Your task to perform on an android device: Go to sound settings Image 0: 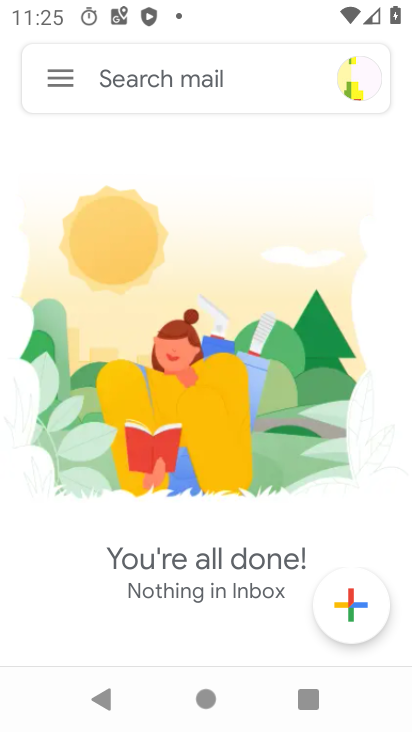
Step 0: press home button
Your task to perform on an android device: Go to sound settings Image 1: 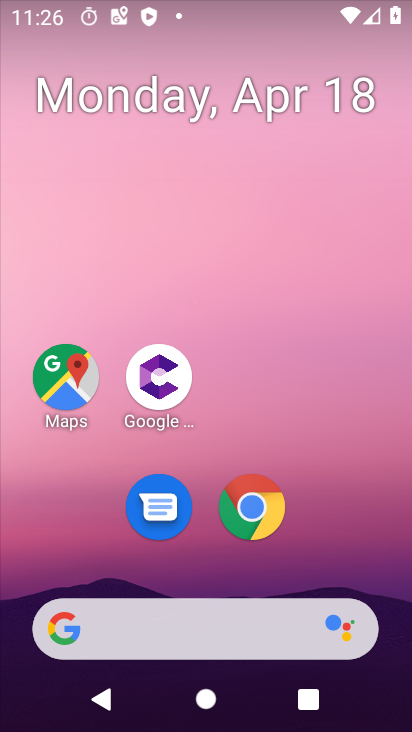
Step 1: drag from (289, 664) to (387, 212)
Your task to perform on an android device: Go to sound settings Image 2: 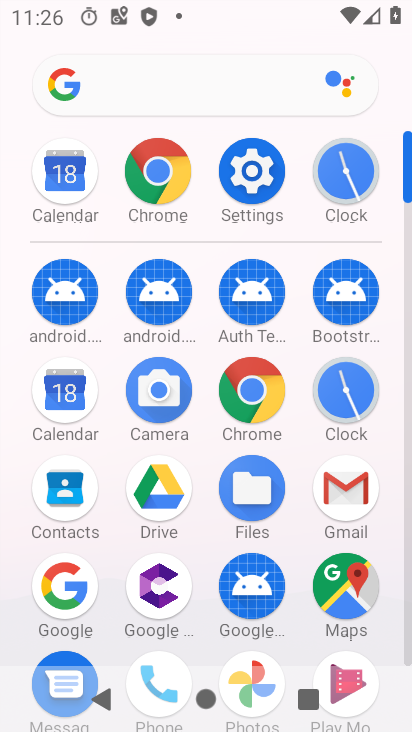
Step 2: click (267, 186)
Your task to perform on an android device: Go to sound settings Image 3: 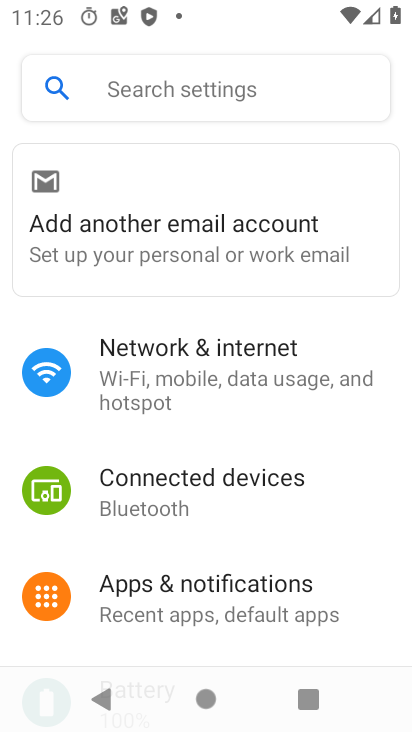
Step 3: click (176, 85)
Your task to perform on an android device: Go to sound settings Image 4: 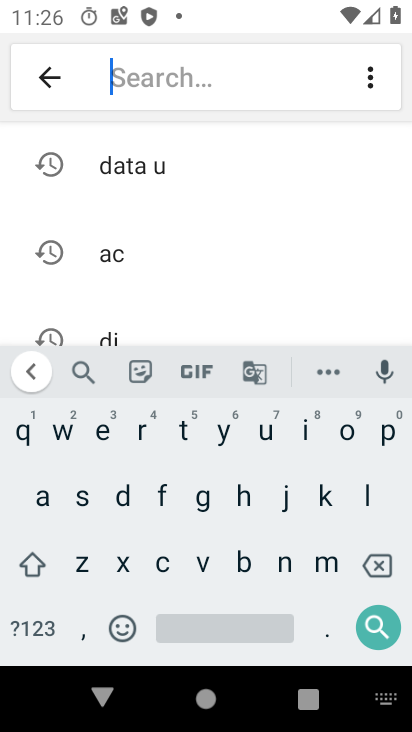
Step 4: click (76, 489)
Your task to perform on an android device: Go to sound settings Image 5: 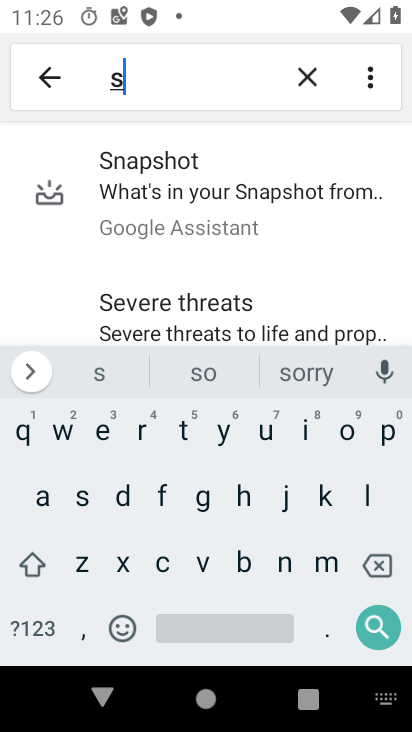
Step 5: click (344, 440)
Your task to perform on an android device: Go to sound settings Image 6: 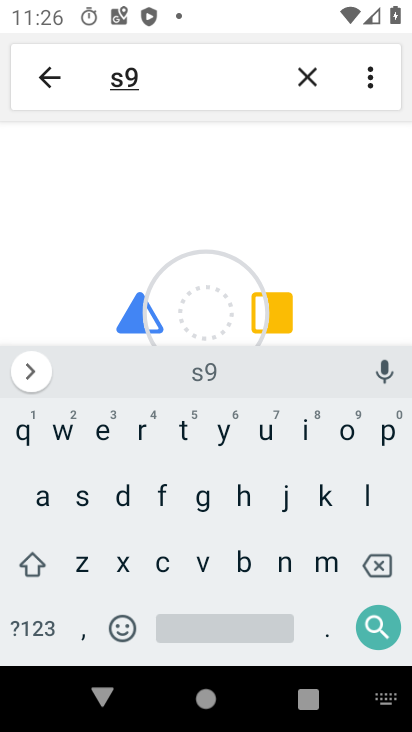
Step 6: click (380, 557)
Your task to perform on an android device: Go to sound settings Image 7: 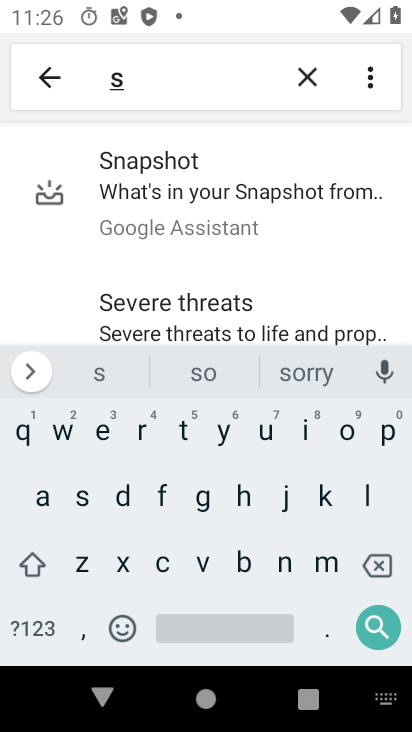
Step 7: click (342, 428)
Your task to perform on an android device: Go to sound settings Image 8: 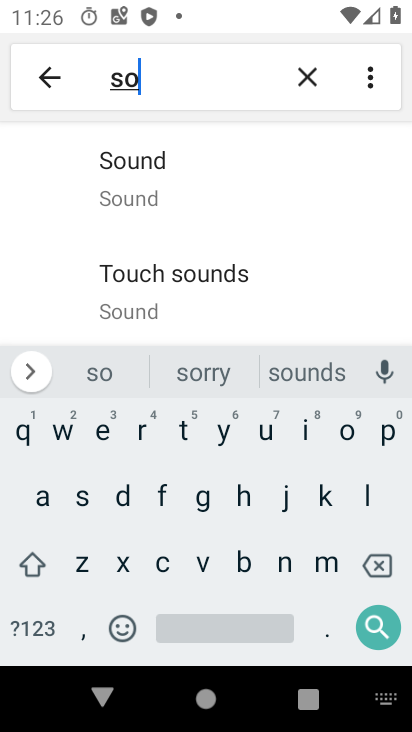
Step 8: click (301, 383)
Your task to perform on an android device: Go to sound settings Image 9: 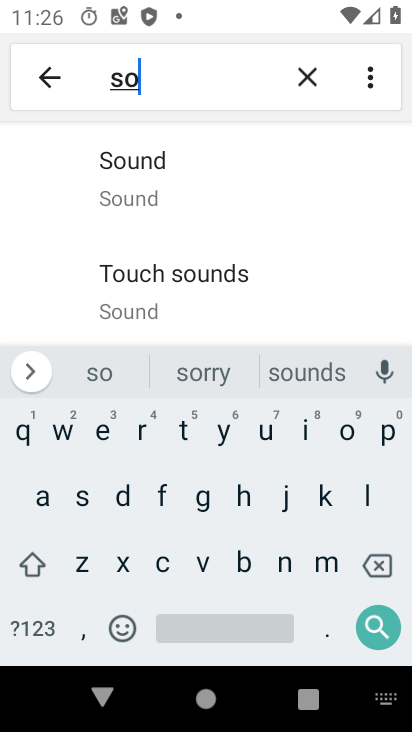
Step 9: click (301, 382)
Your task to perform on an android device: Go to sound settings Image 10: 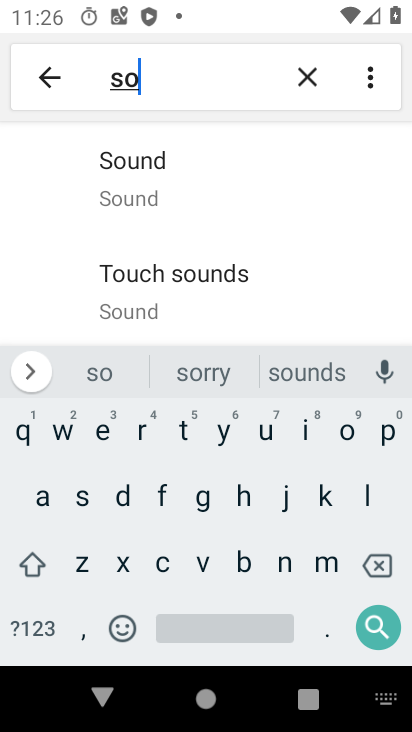
Step 10: click (301, 382)
Your task to perform on an android device: Go to sound settings Image 11: 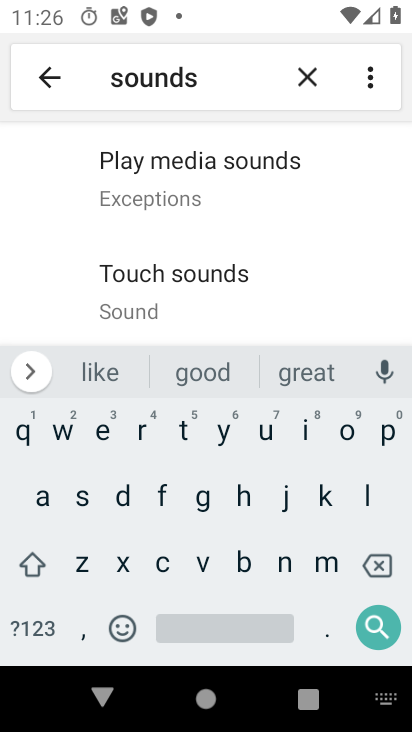
Step 11: click (390, 562)
Your task to perform on an android device: Go to sound settings Image 12: 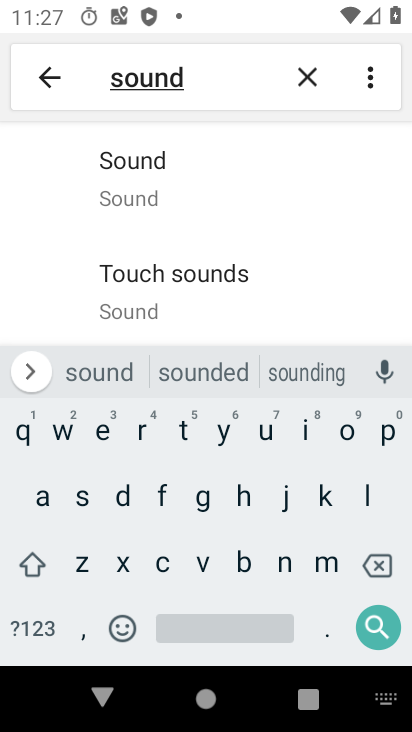
Step 12: click (182, 185)
Your task to perform on an android device: Go to sound settings Image 13: 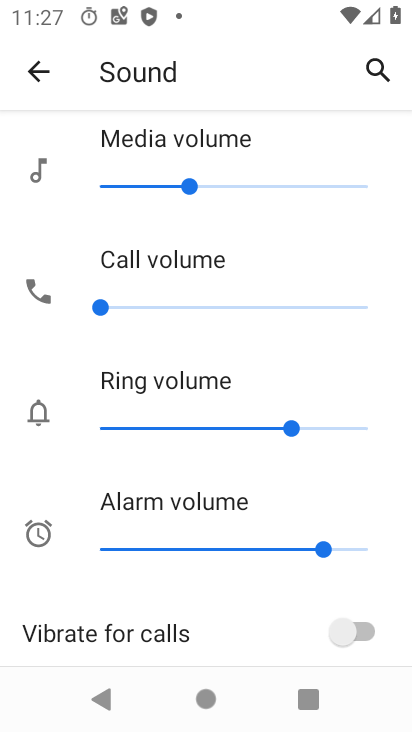
Step 13: task complete